Your task to perform on an android device: Open wifi settings Image 0: 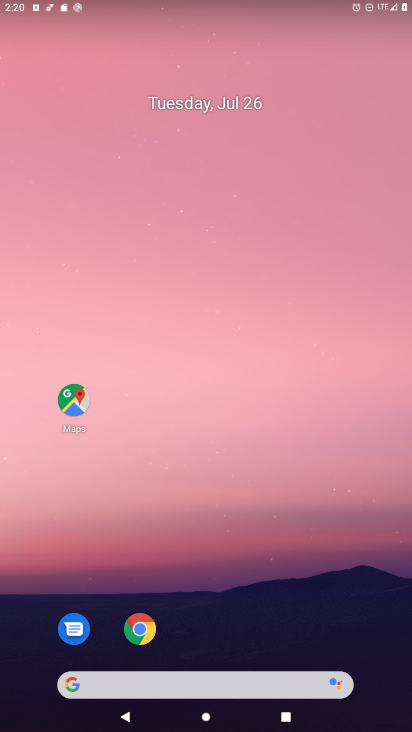
Step 0: drag from (372, 624) to (335, 12)
Your task to perform on an android device: Open wifi settings Image 1: 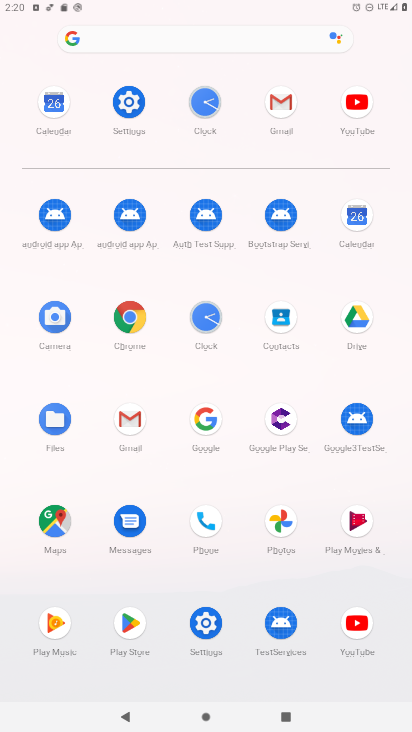
Step 1: click (207, 624)
Your task to perform on an android device: Open wifi settings Image 2: 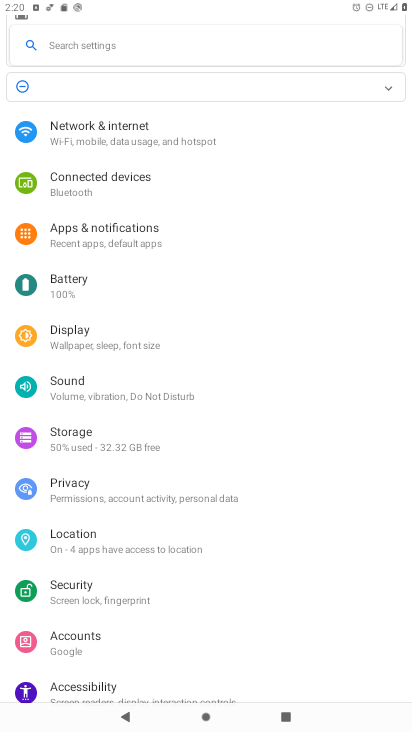
Step 2: click (105, 135)
Your task to perform on an android device: Open wifi settings Image 3: 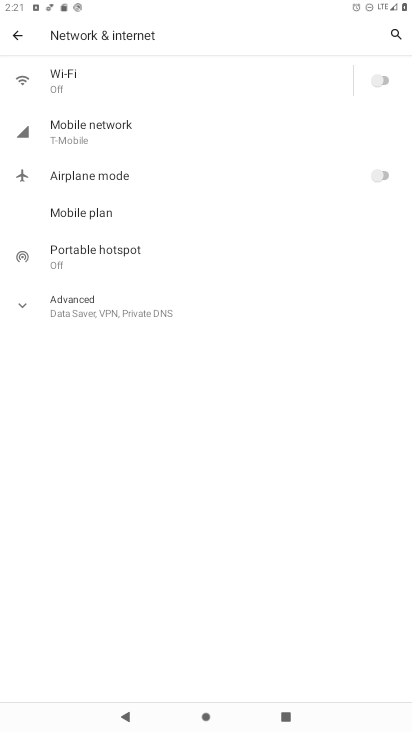
Step 3: click (55, 78)
Your task to perform on an android device: Open wifi settings Image 4: 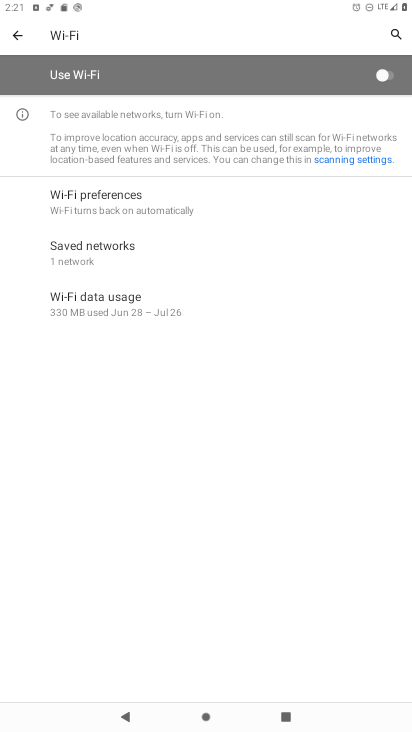
Step 4: task complete